Your task to perform on an android device: Open settings on Google Maps Image 0: 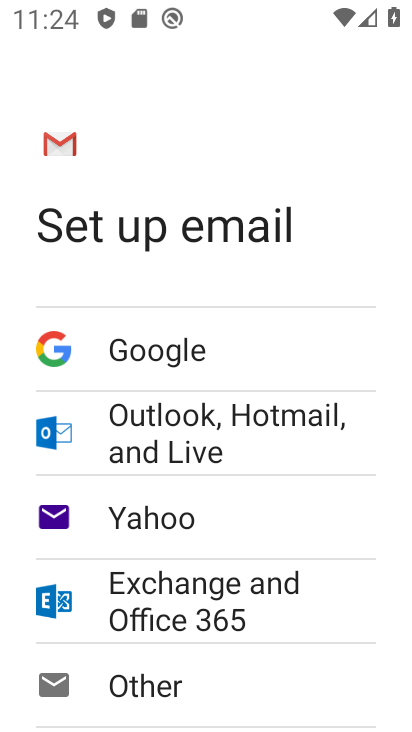
Step 0: press home button
Your task to perform on an android device: Open settings on Google Maps Image 1: 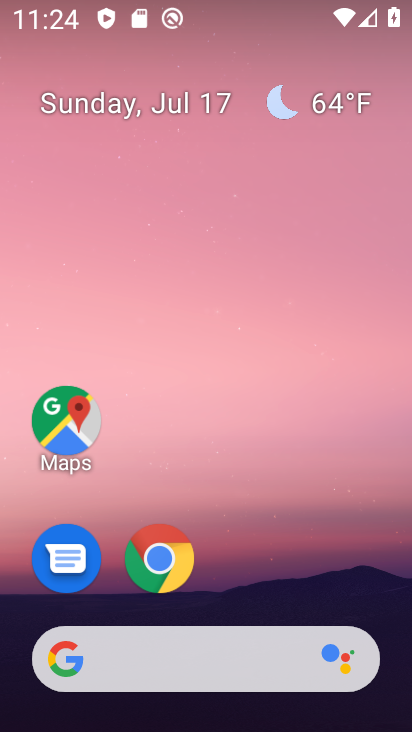
Step 1: drag from (342, 578) to (356, 156)
Your task to perform on an android device: Open settings on Google Maps Image 2: 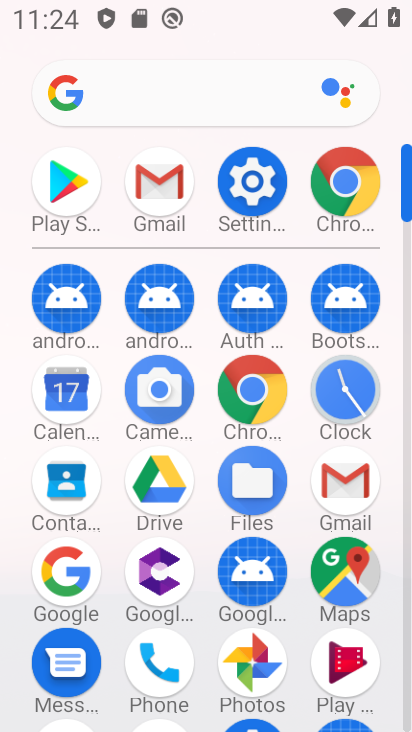
Step 2: click (364, 587)
Your task to perform on an android device: Open settings on Google Maps Image 3: 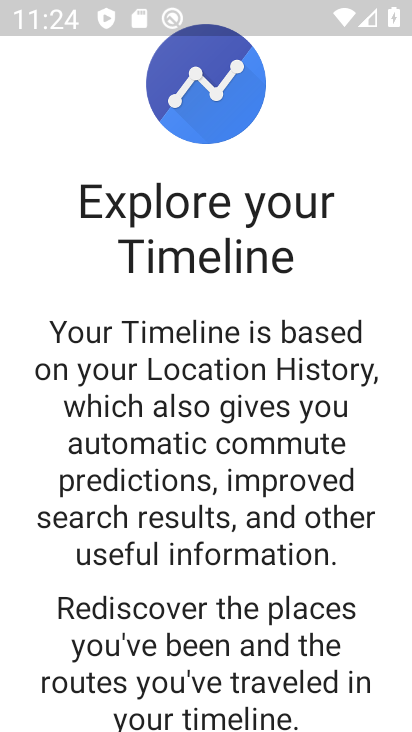
Step 3: press back button
Your task to perform on an android device: Open settings on Google Maps Image 4: 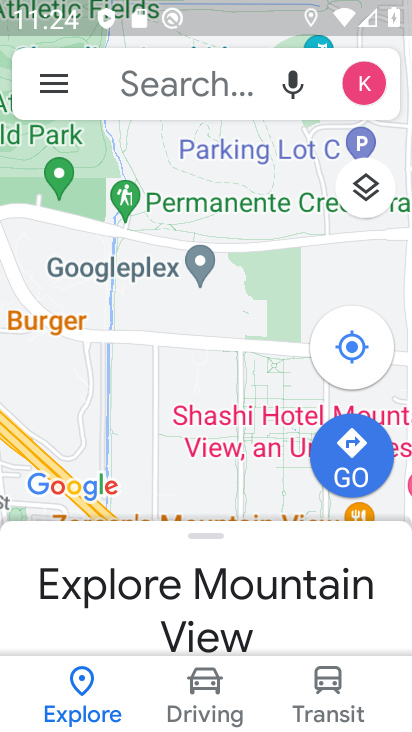
Step 4: click (57, 81)
Your task to perform on an android device: Open settings on Google Maps Image 5: 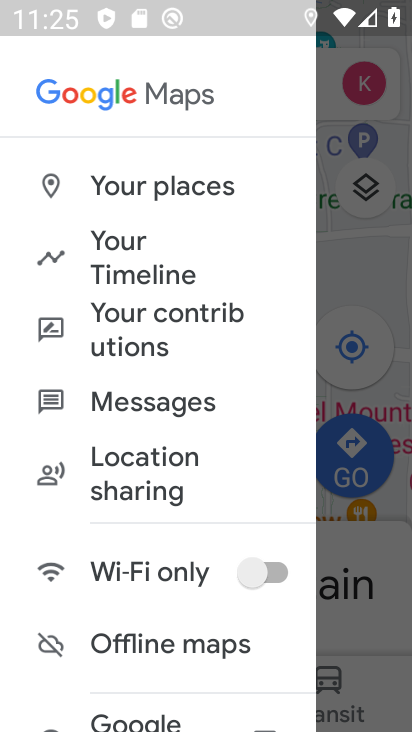
Step 5: drag from (257, 396) to (266, 308)
Your task to perform on an android device: Open settings on Google Maps Image 6: 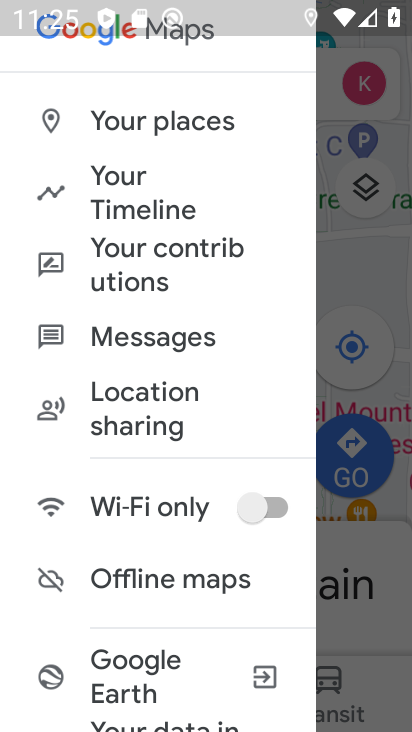
Step 6: drag from (251, 429) to (236, 315)
Your task to perform on an android device: Open settings on Google Maps Image 7: 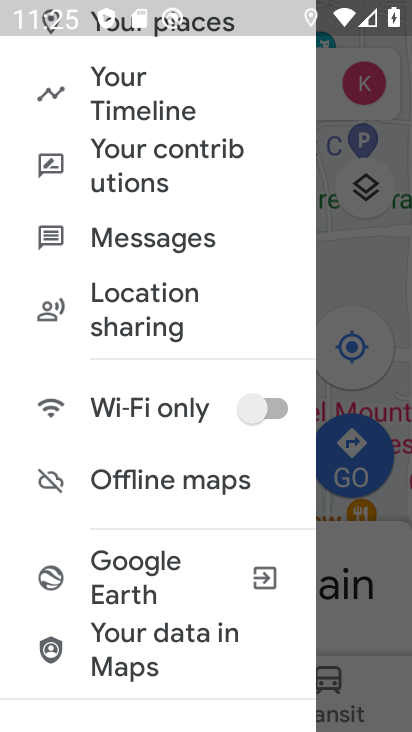
Step 7: drag from (210, 545) to (204, 395)
Your task to perform on an android device: Open settings on Google Maps Image 8: 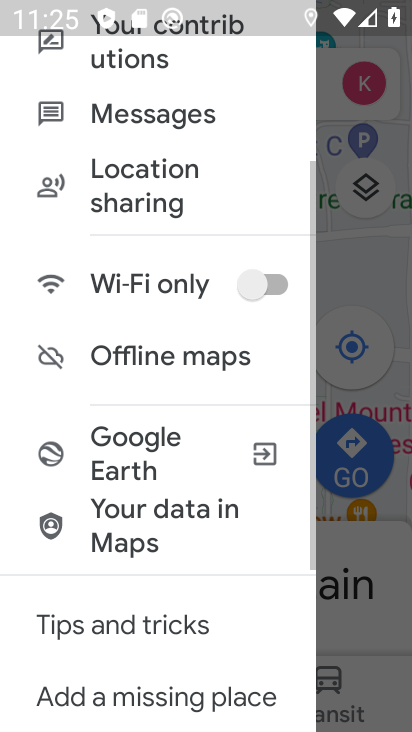
Step 8: drag from (195, 568) to (164, 331)
Your task to perform on an android device: Open settings on Google Maps Image 9: 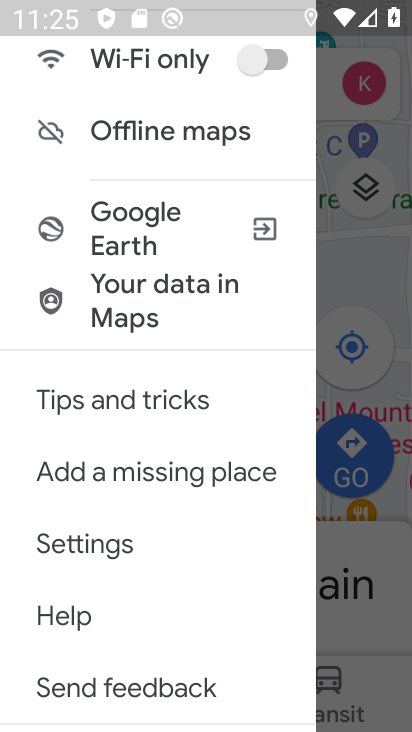
Step 9: drag from (212, 538) to (204, 374)
Your task to perform on an android device: Open settings on Google Maps Image 10: 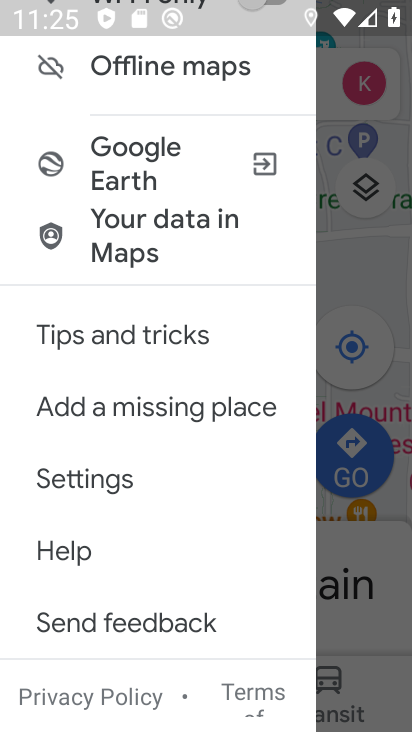
Step 10: click (153, 492)
Your task to perform on an android device: Open settings on Google Maps Image 11: 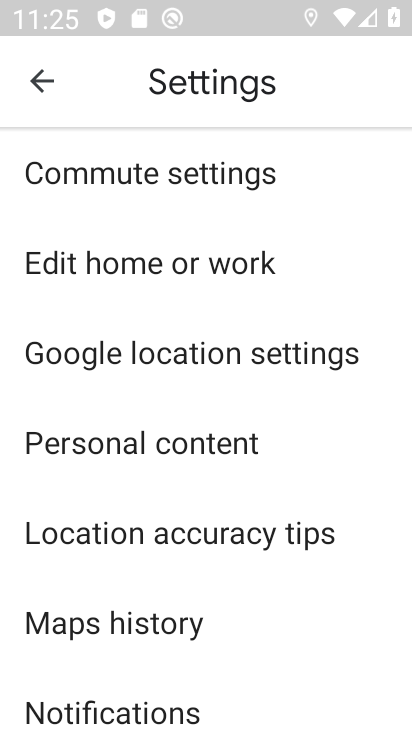
Step 11: task complete